Your task to perform on an android device: turn on sleep mode Image 0: 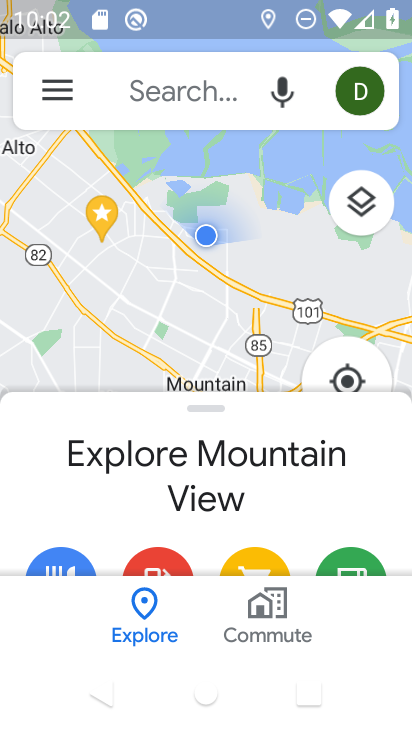
Step 0: press home button
Your task to perform on an android device: turn on sleep mode Image 1: 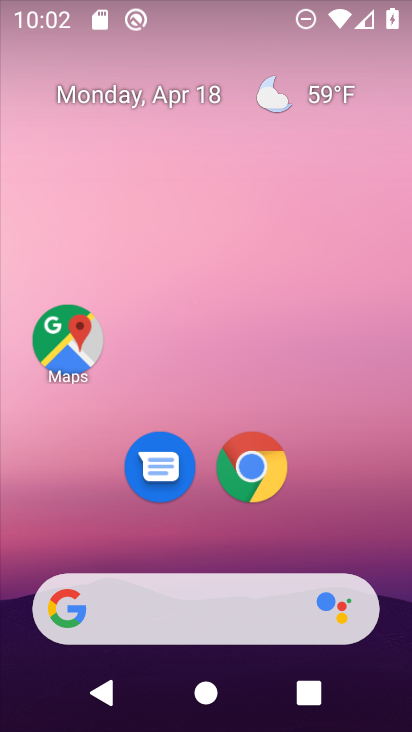
Step 1: drag from (223, 412) to (279, 4)
Your task to perform on an android device: turn on sleep mode Image 2: 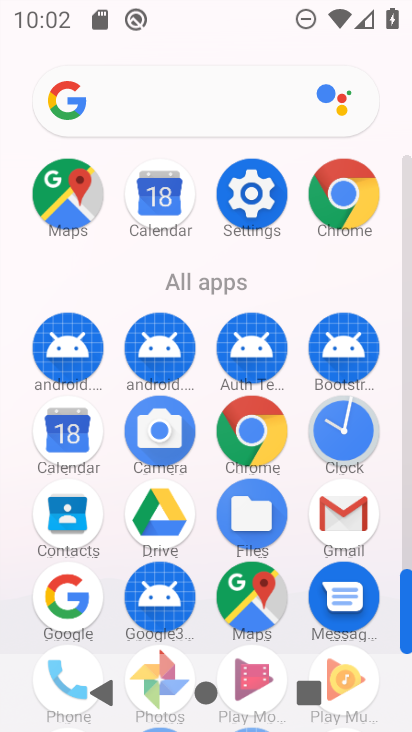
Step 2: click (251, 190)
Your task to perform on an android device: turn on sleep mode Image 3: 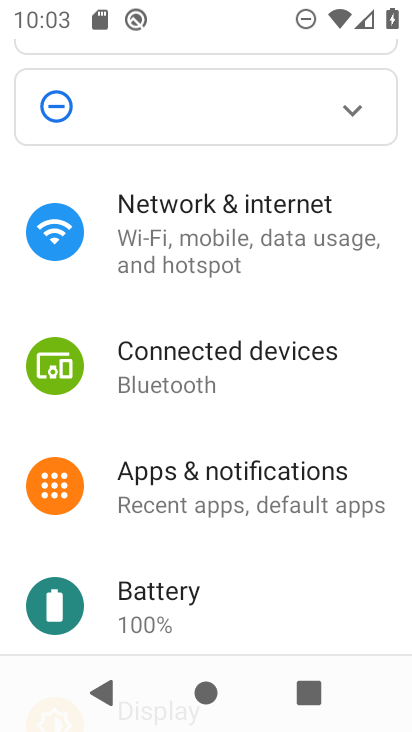
Step 3: drag from (157, 150) to (174, 567)
Your task to perform on an android device: turn on sleep mode Image 4: 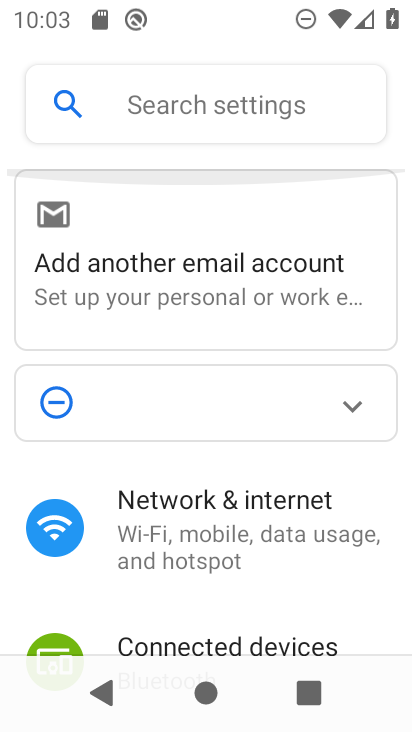
Step 4: click (131, 89)
Your task to perform on an android device: turn on sleep mode Image 5: 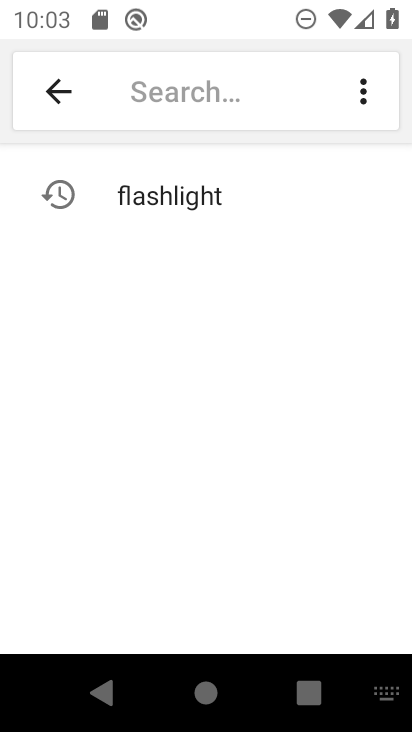
Step 5: type "sleep mode"
Your task to perform on an android device: turn on sleep mode Image 6: 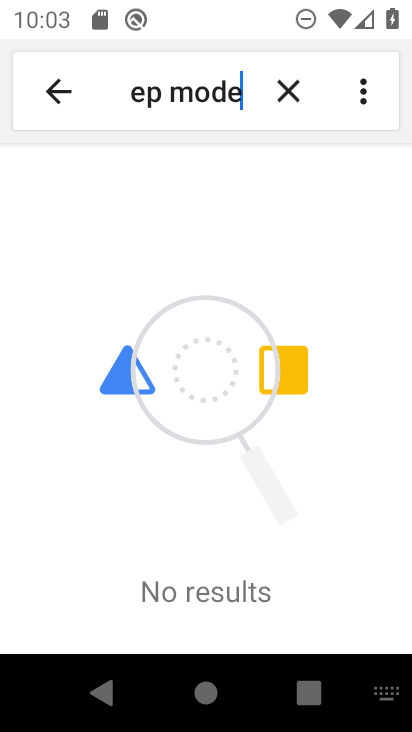
Step 6: task complete